Your task to perform on an android device: Open Wikipedia Image 0: 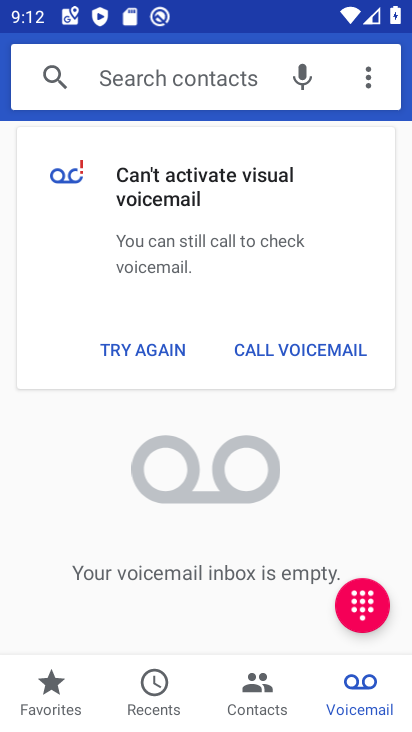
Step 0: press home button
Your task to perform on an android device: Open Wikipedia Image 1: 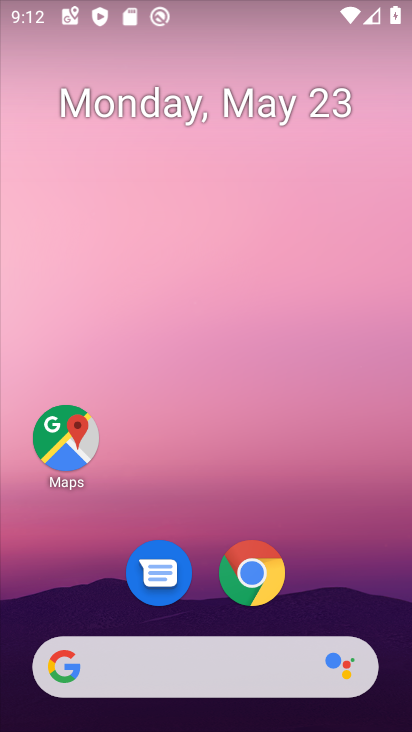
Step 1: drag from (380, 610) to (359, 221)
Your task to perform on an android device: Open Wikipedia Image 2: 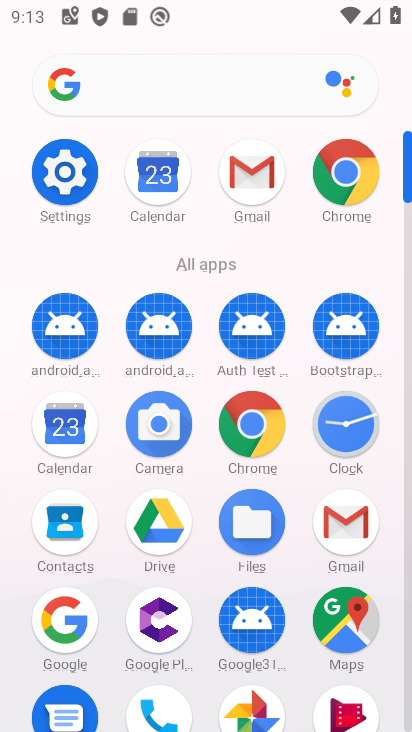
Step 2: click (273, 449)
Your task to perform on an android device: Open Wikipedia Image 3: 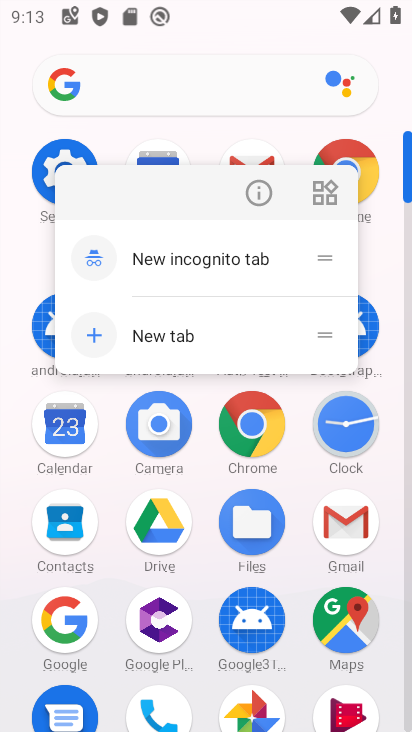
Step 3: click (273, 449)
Your task to perform on an android device: Open Wikipedia Image 4: 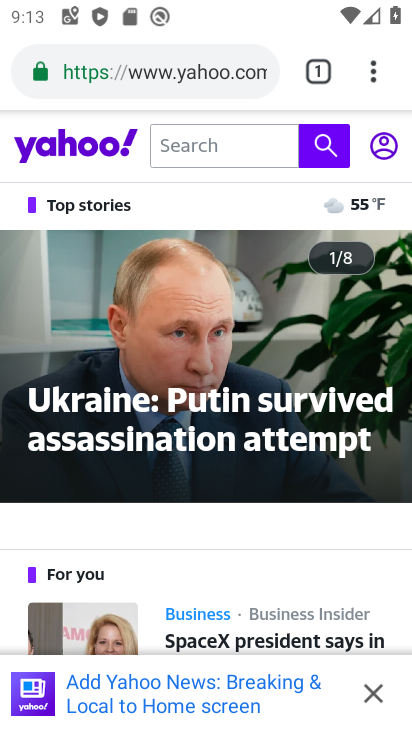
Step 4: press back button
Your task to perform on an android device: Open Wikipedia Image 5: 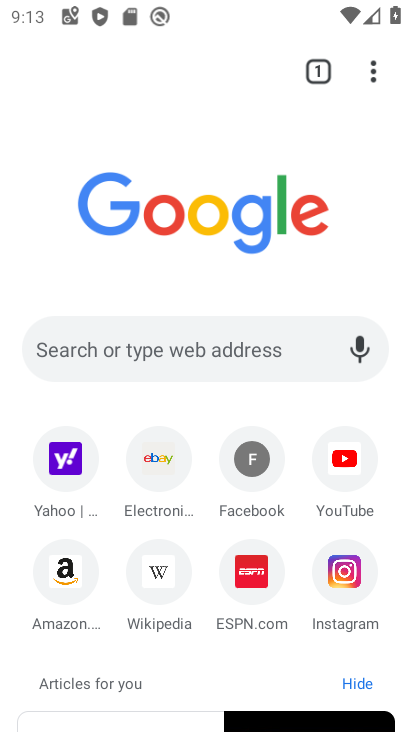
Step 5: click (142, 583)
Your task to perform on an android device: Open Wikipedia Image 6: 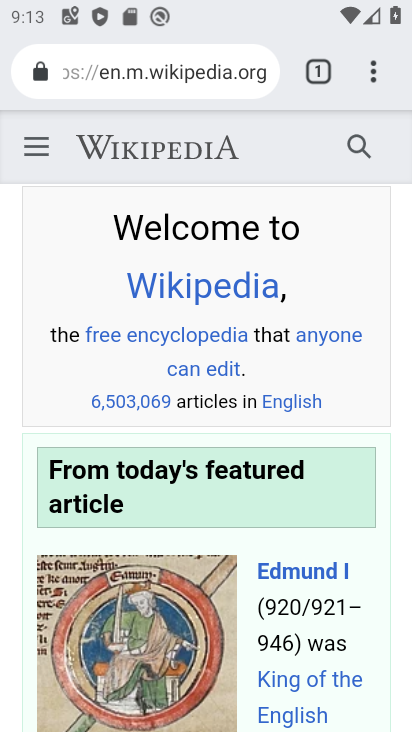
Step 6: task complete